Your task to perform on an android device: Go to Wikipedia Image 0: 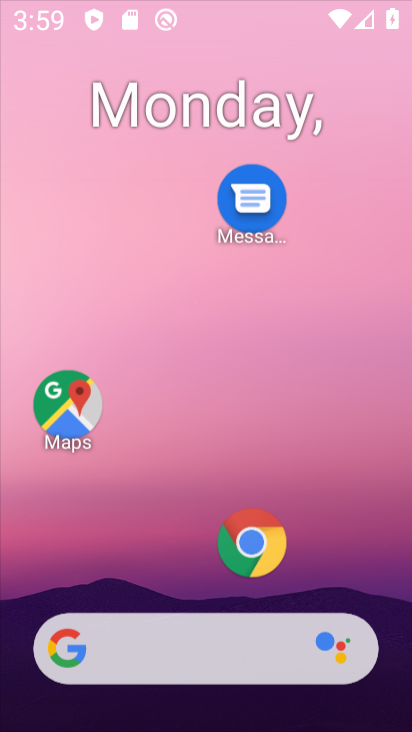
Step 0: click (177, 49)
Your task to perform on an android device: Go to Wikipedia Image 1: 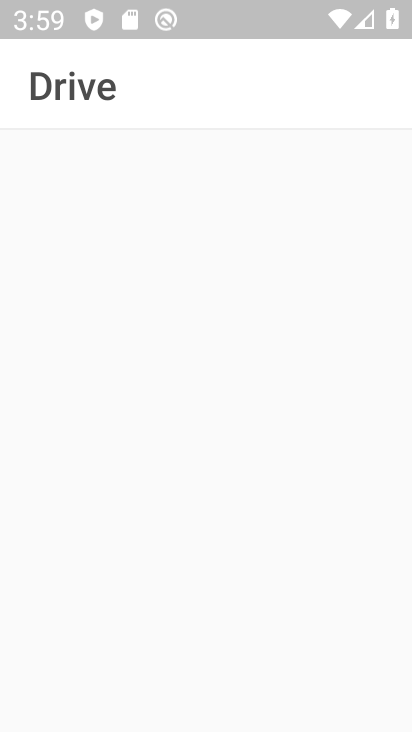
Step 1: press home button
Your task to perform on an android device: Go to Wikipedia Image 2: 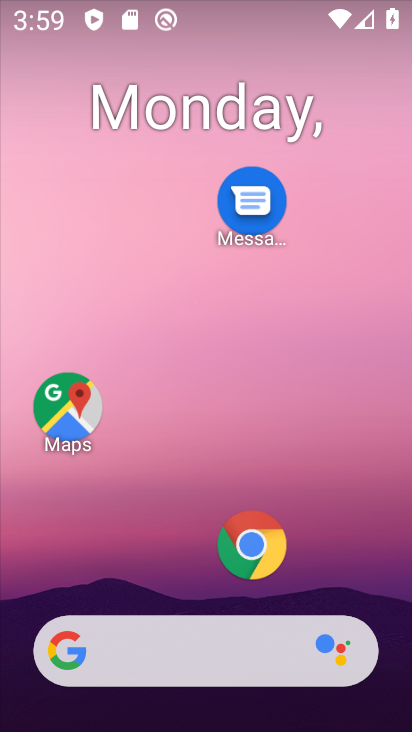
Step 2: drag from (195, 592) to (188, 113)
Your task to perform on an android device: Go to Wikipedia Image 3: 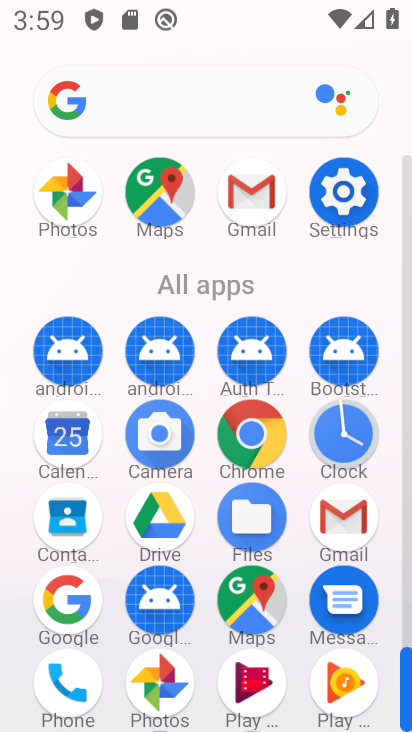
Step 3: click (253, 425)
Your task to perform on an android device: Go to Wikipedia Image 4: 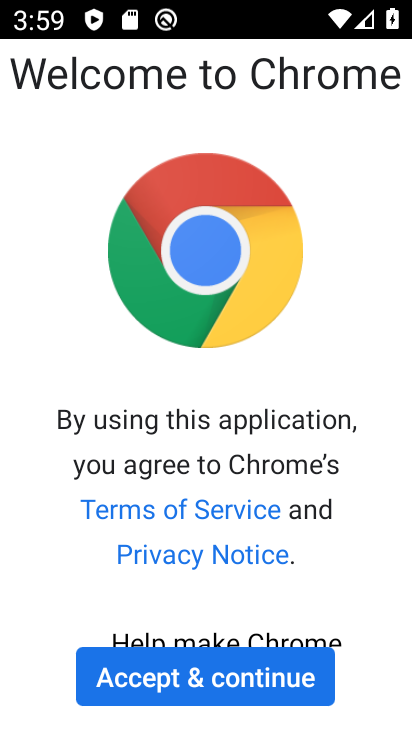
Step 4: click (203, 676)
Your task to perform on an android device: Go to Wikipedia Image 5: 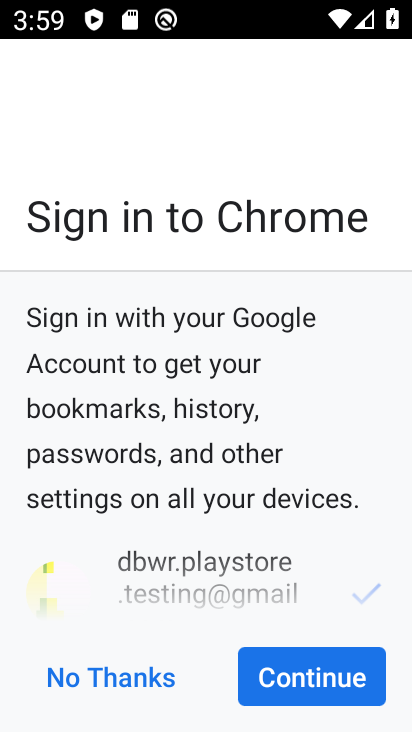
Step 5: click (298, 679)
Your task to perform on an android device: Go to Wikipedia Image 6: 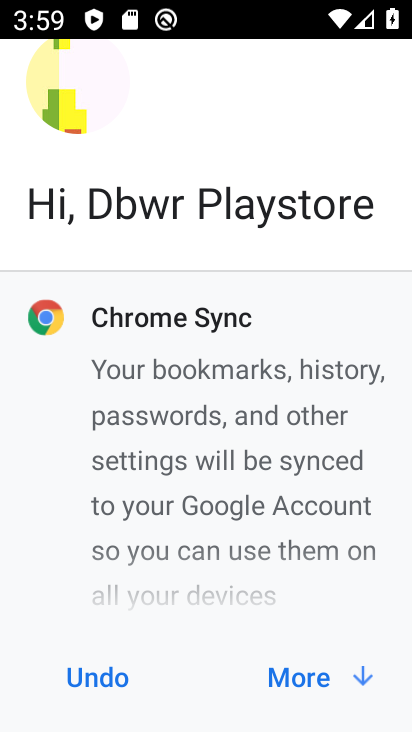
Step 6: click (289, 681)
Your task to perform on an android device: Go to Wikipedia Image 7: 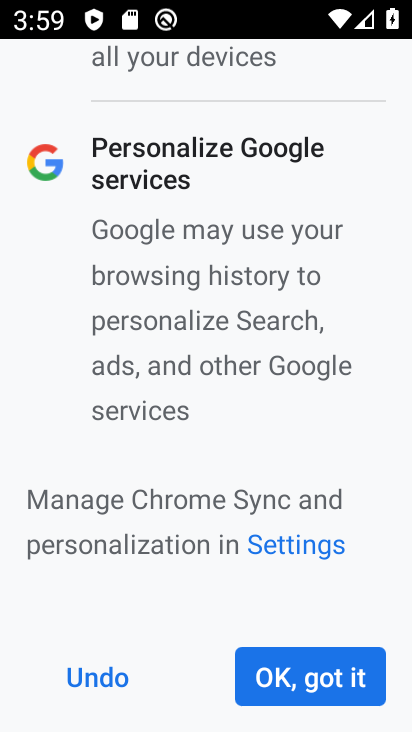
Step 7: click (303, 683)
Your task to perform on an android device: Go to Wikipedia Image 8: 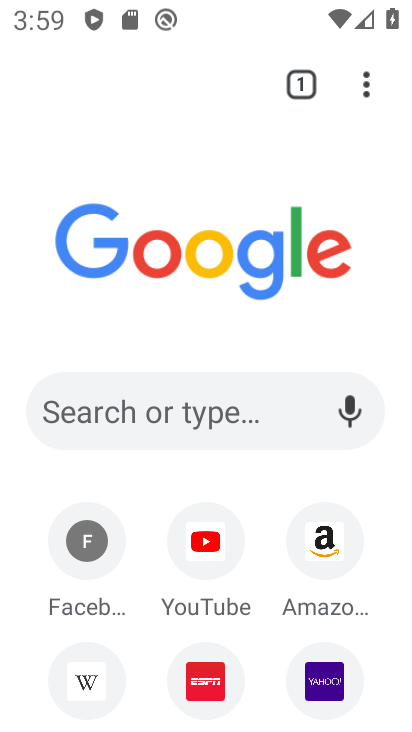
Step 8: drag from (271, 647) to (271, 316)
Your task to perform on an android device: Go to Wikipedia Image 9: 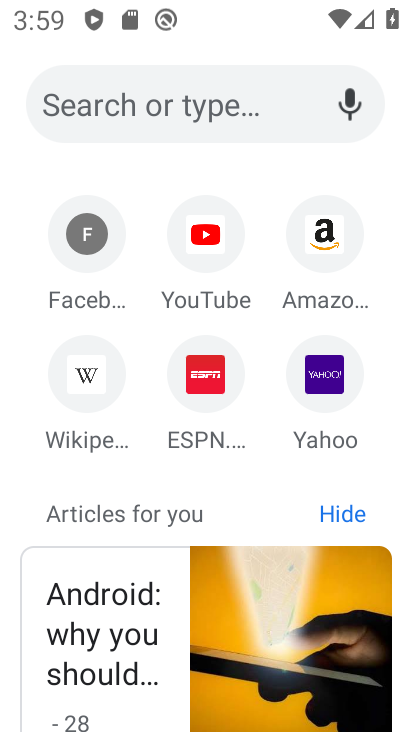
Step 9: click (87, 363)
Your task to perform on an android device: Go to Wikipedia Image 10: 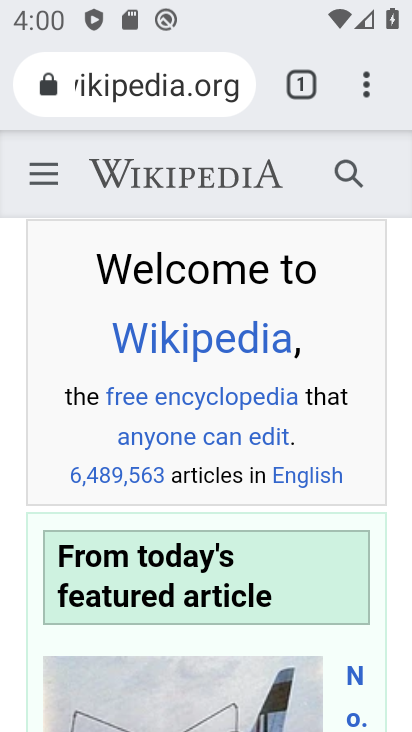
Step 10: task complete